Your task to perform on an android device: Go to Yahoo.com Image 0: 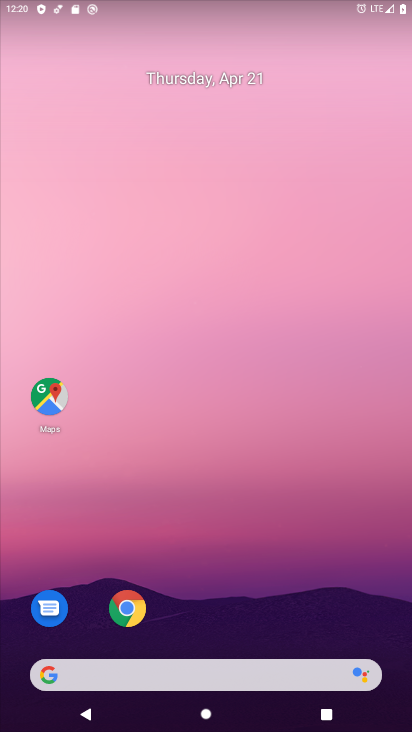
Step 0: click (130, 610)
Your task to perform on an android device: Go to Yahoo.com Image 1: 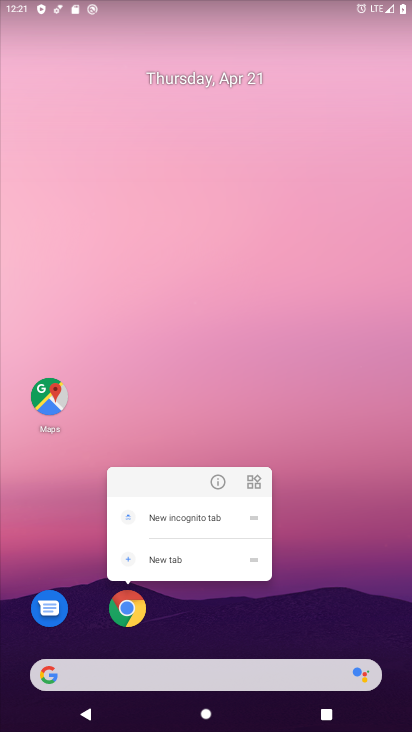
Step 1: click (139, 607)
Your task to perform on an android device: Go to Yahoo.com Image 2: 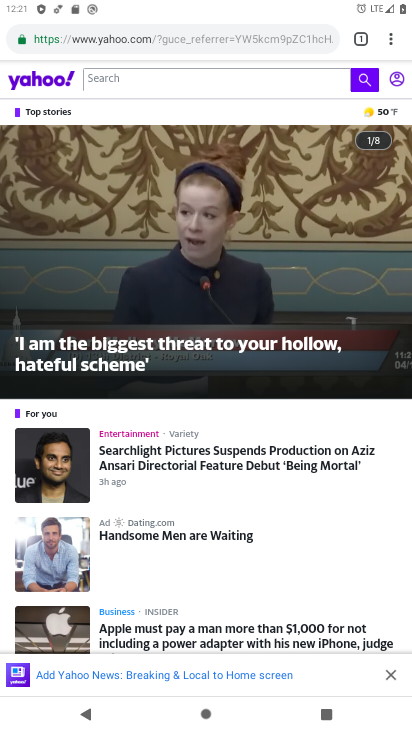
Step 2: task complete